Your task to perform on an android device: Go to accessibility settings Image 0: 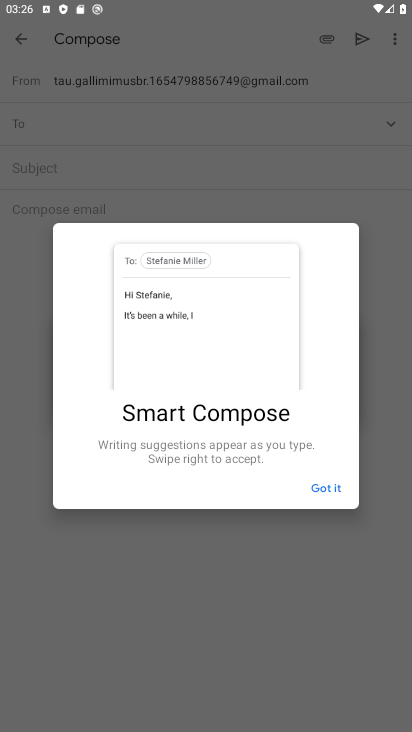
Step 0: drag from (228, 8) to (234, 604)
Your task to perform on an android device: Go to accessibility settings Image 1: 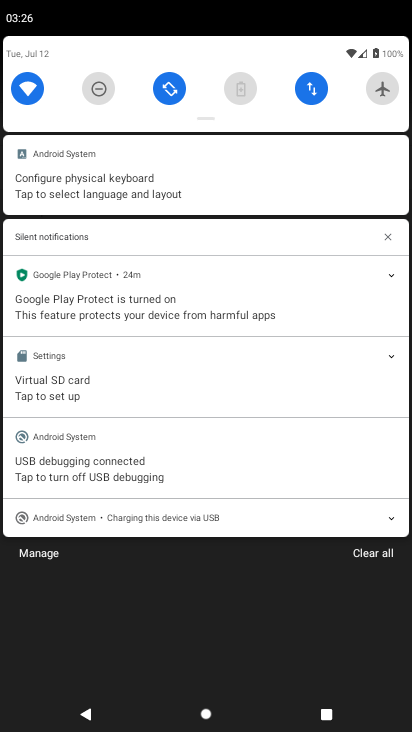
Step 1: drag from (217, 10) to (217, 556)
Your task to perform on an android device: Go to accessibility settings Image 2: 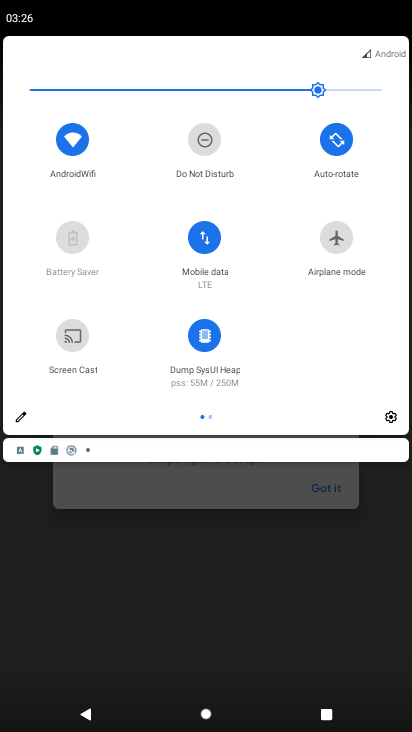
Step 2: drag from (113, 5) to (201, 622)
Your task to perform on an android device: Go to accessibility settings Image 3: 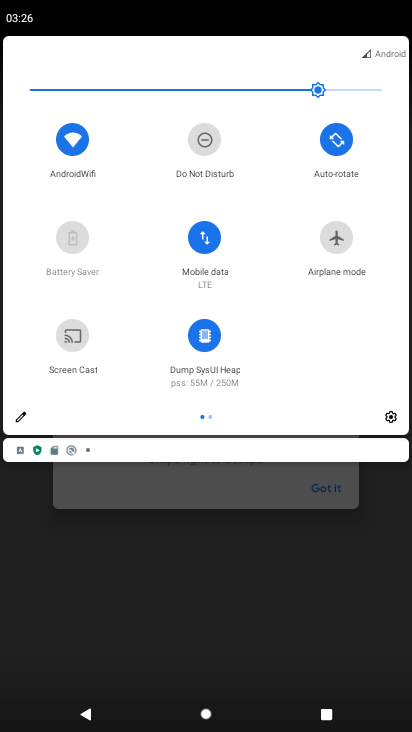
Step 3: click (388, 423)
Your task to perform on an android device: Go to accessibility settings Image 4: 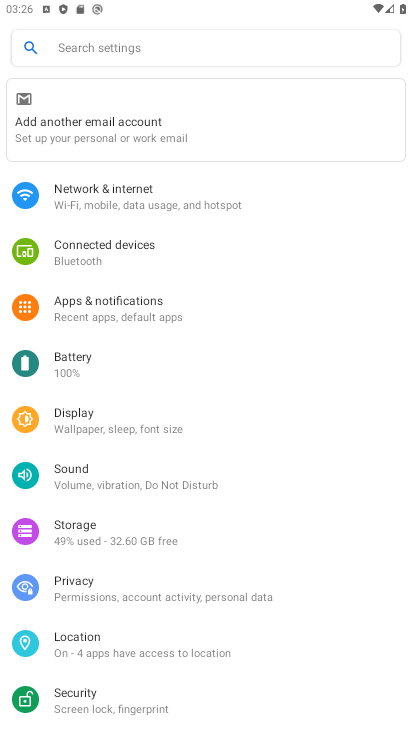
Step 4: drag from (167, 647) to (199, 147)
Your task to perform on an android device: Go to accessibility settings Image 5: 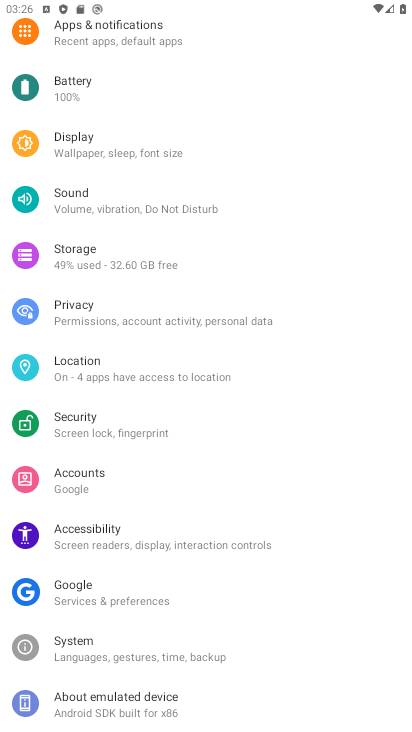
Step 5: drag from (67, 697) to (289, 166)
Your task to perform on an android device: Go to accessibility settings Image 6: 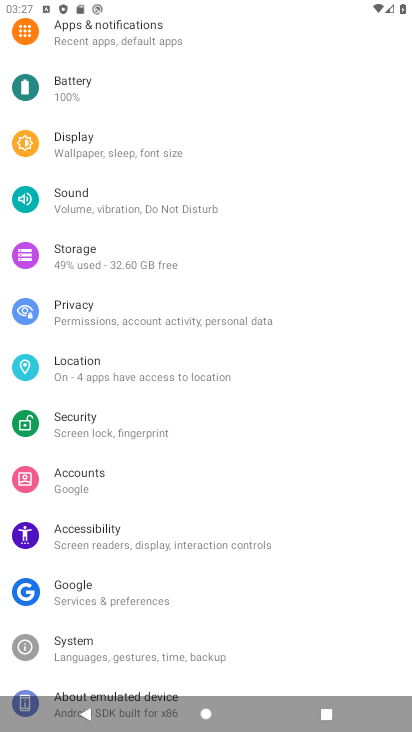
Step 6: click (78, 555)
Your task to perform on an android device: Go to accessibility settings Image 7: 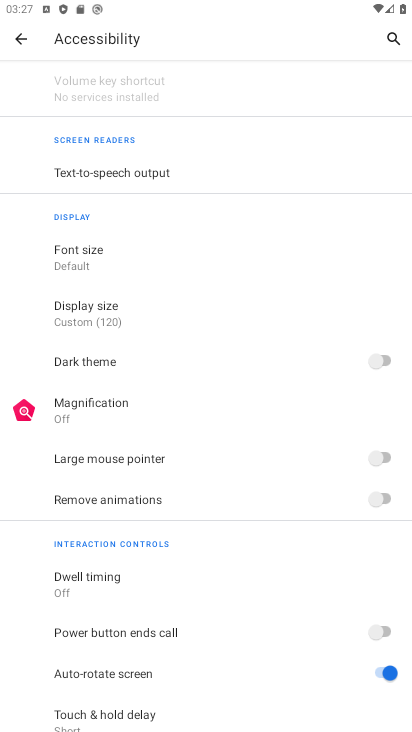
Step 7: click (57, 546)
Your task to perform on an android device: Go to accessibility settings Image 8: 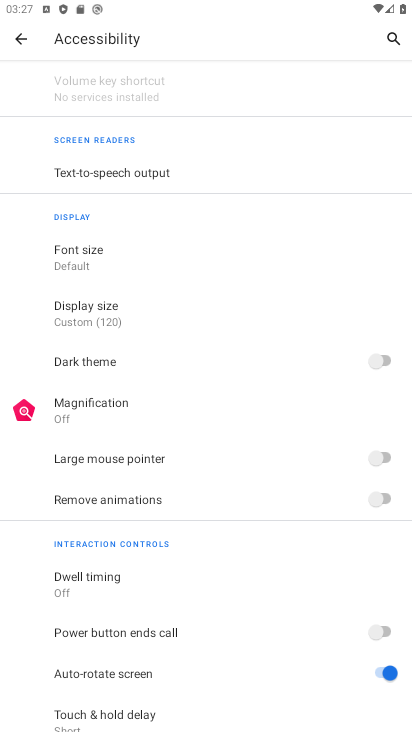
Step 8: click (159, 534)
Your task to perform on an android device: Go to accessibility settings Image 9: 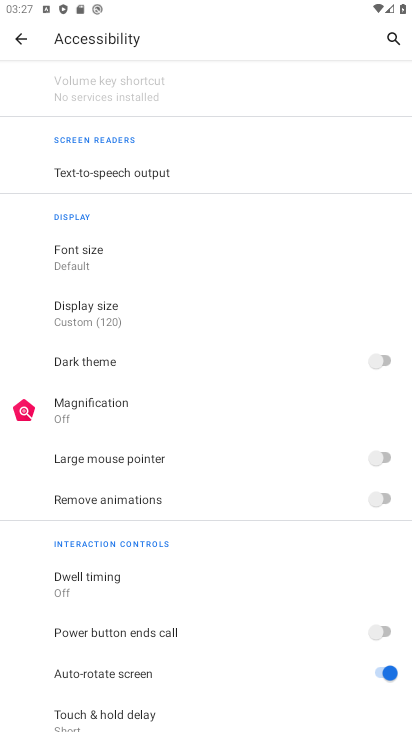
Step 9: click (159, 534)
Your task to perform on an android device: Go to accessibility settings Image 10: 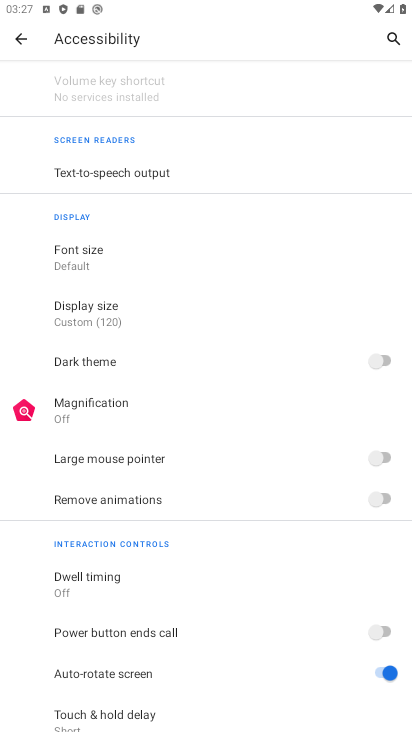
Step 10: task complete